Your task to perform on an android device: turn off data saver in the chrome app Image 0: 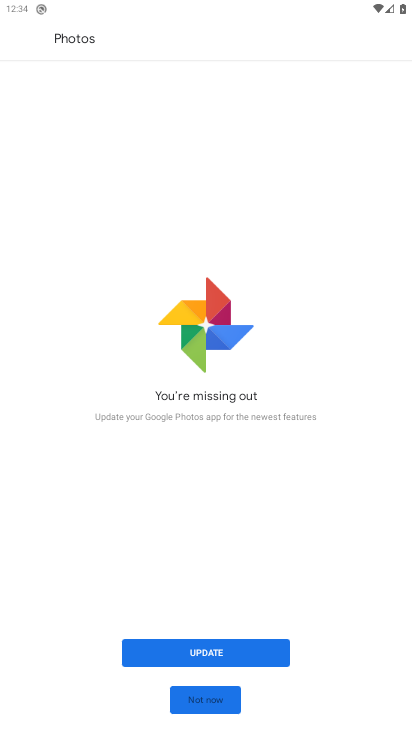
Step 0: click (205, 697)
Your task to perform on an android device: turn off data saver in the chrome app Image 1: 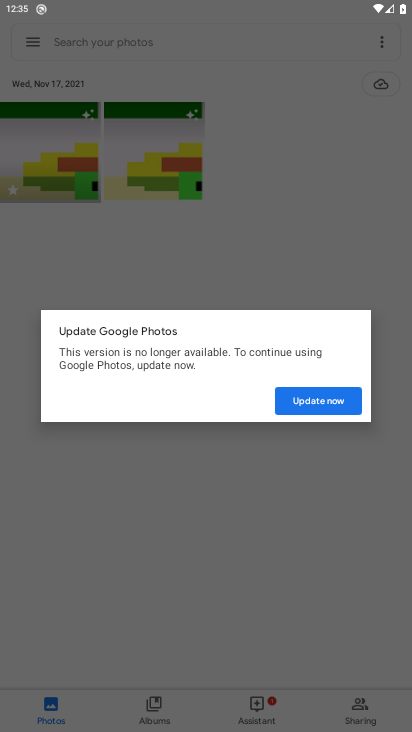
Step 1: click (321, 392)
Your task to perform on an android device: turn off data saver in the chrome app Image 2: 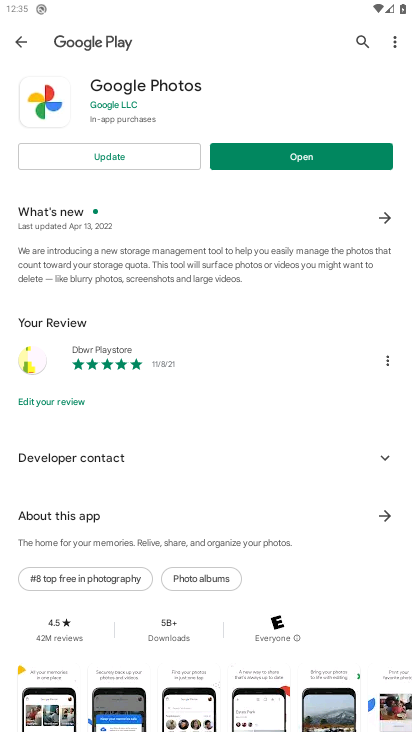
Step 2: press back button
Your task to perform on an android device: turn off data saver in the chrome app Image 3: 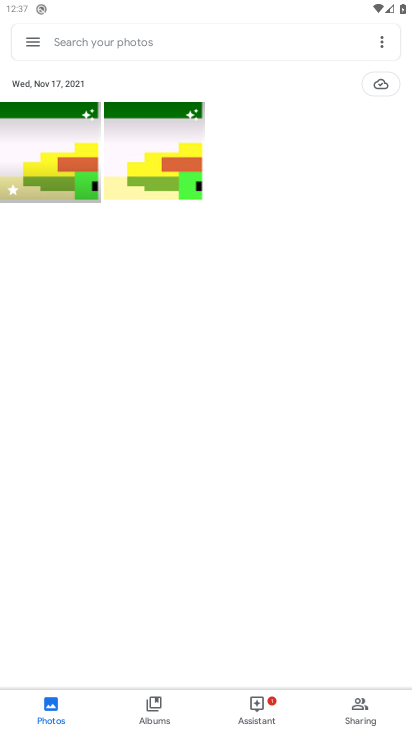
Step 3: press back button
Your task to perform on an android device: turn off data saver in the chrome app Image 4: 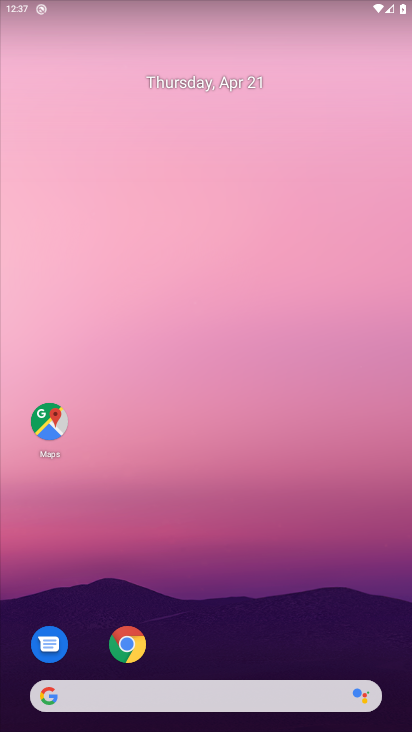
Step 4: click (135, 639)
Your task to perform on an android device: turn off data saver in the chrome app Image 5: 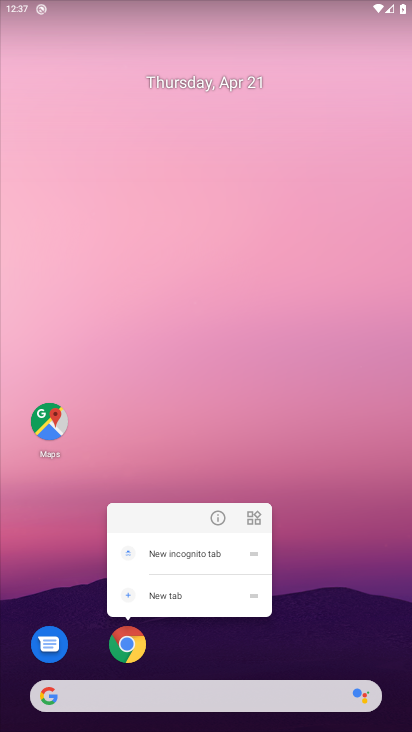
Step 5: click (135, 639)
Your task to perform on an android device: turn off data saver in the chrome app Image 6: 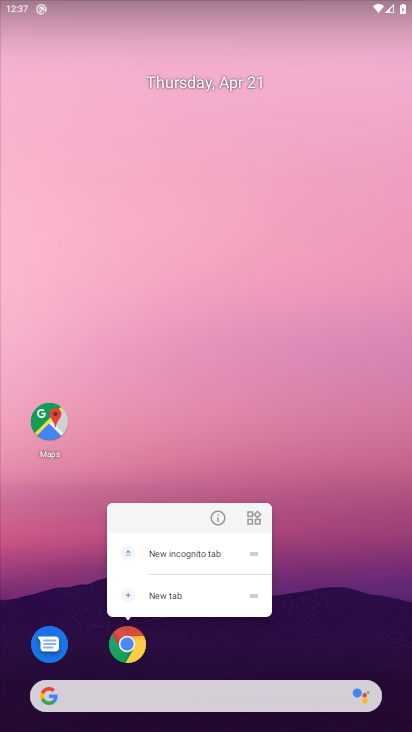
Step 6: click (131, 641)
Your task to perform on an android device: turn off data saver in the chrome app Image 7: 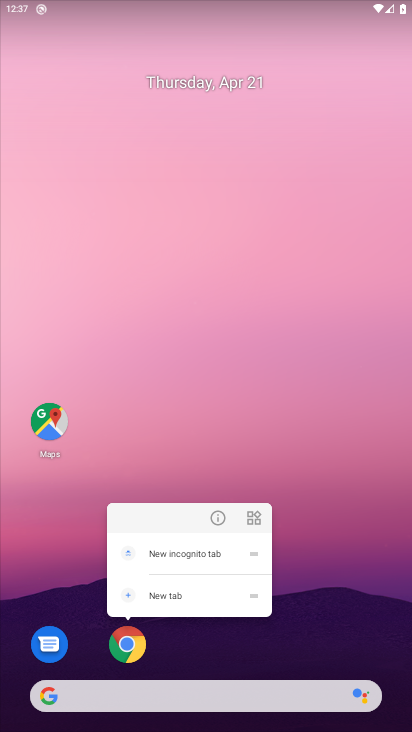
Step 7: click (131, 641)
Your task to perform on an android device: turn off data saver in the chrome app Image 8: 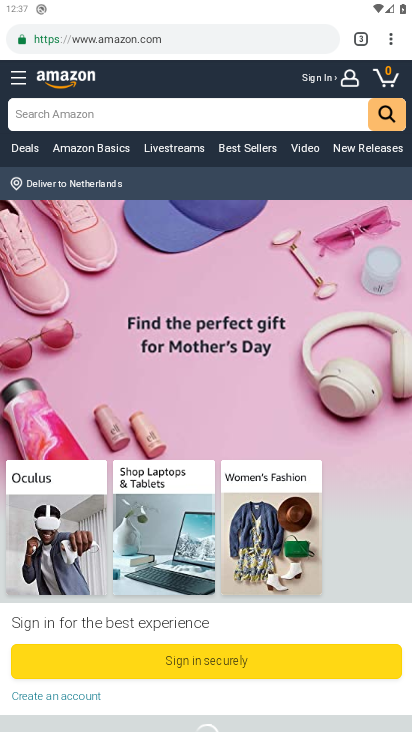
Step 8: drag from (387, 34) to (259, 515)
Your task to perform on an android device: turn off data saver in the chrome app Image 9: 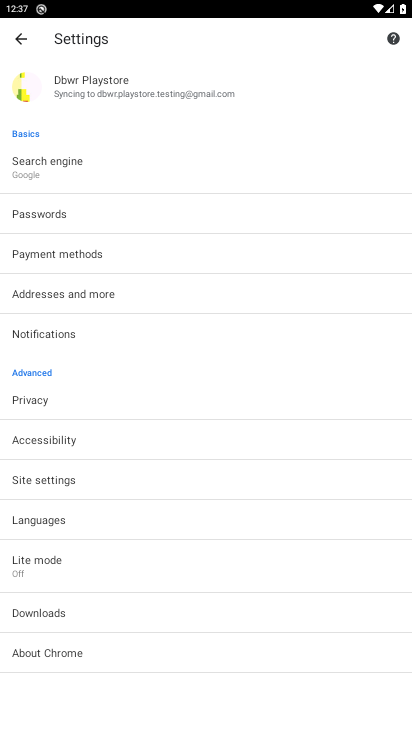
Step 9: click (54, 563)
Your task to perform on an android device: turn off data saver in the chrome app Image 10: 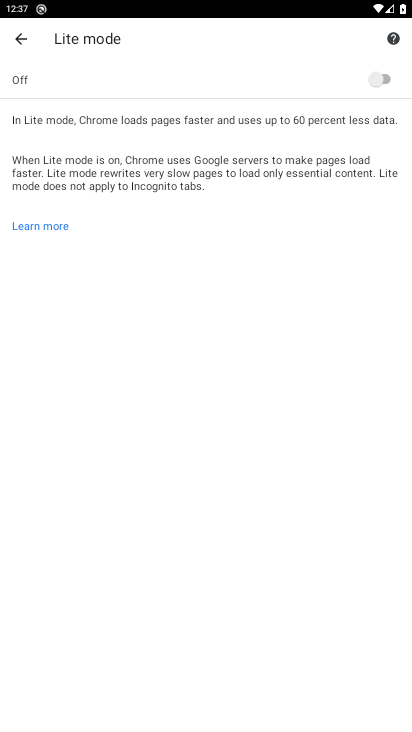
Step 10: task complete